Your task to perform on an android device: Open notification settings Image 0: 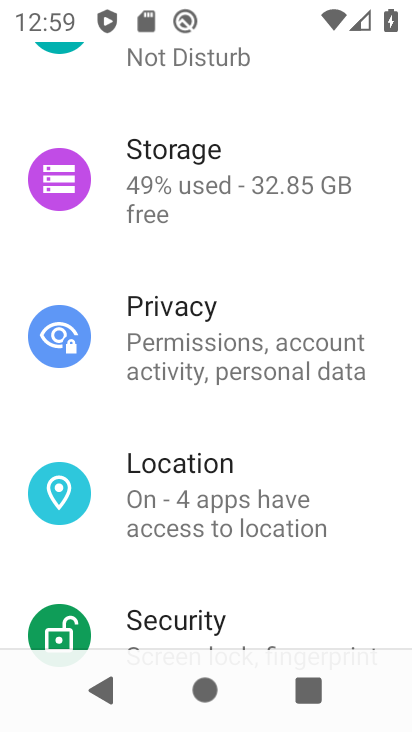
Step 0: press home button
Your task to perform on an android device: Open notification settings Image 1: 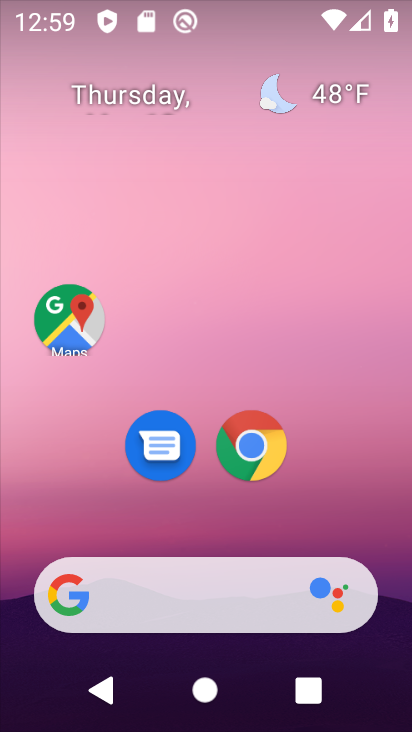
Step 1: drag from (193, 520) to (170, 46)
Your task to perform on an android device: Open notification settings Image 2: 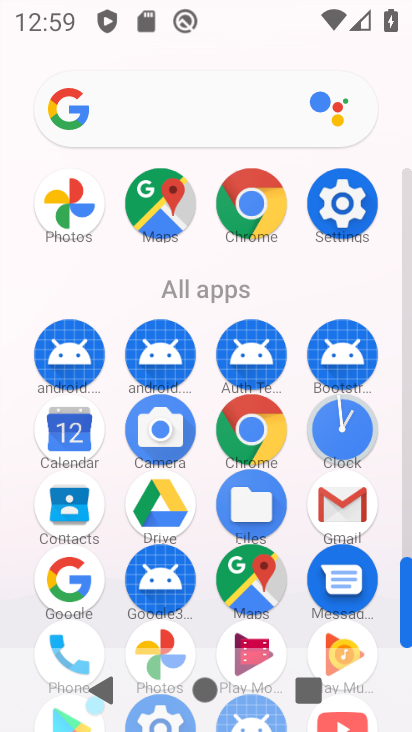
Step 2: click (343, 203)
Your task to perform on an android device: Open notification settings Image 3: 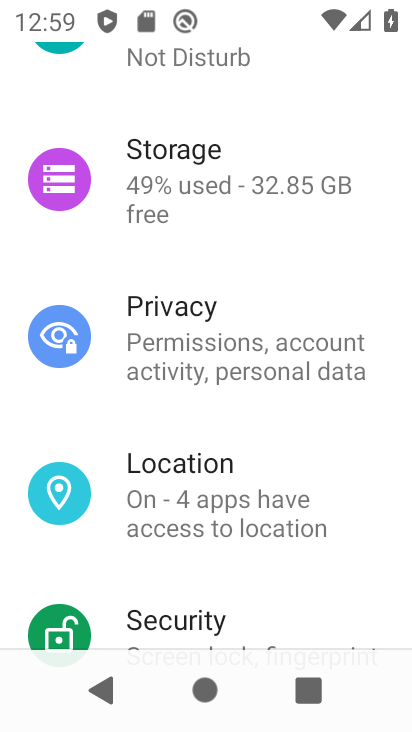
Step 3: drag from (295, 255) to (252, 612)
Your task to perform on an android device: Open notification settings Image 4: 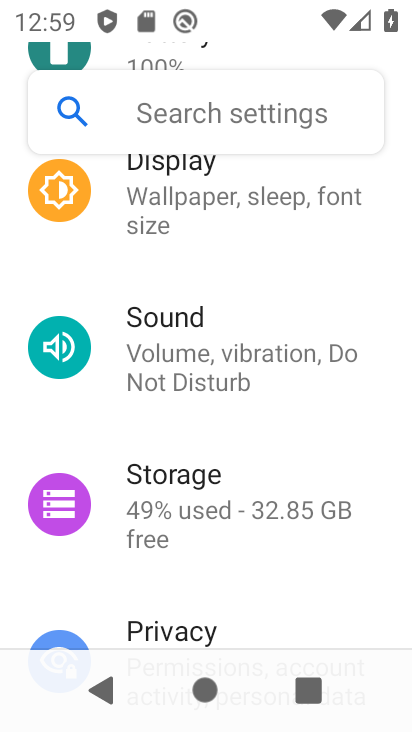
Step 4: drag from (215, 226) to (197, 557)
Your task to perform on an android device: Open notification settings Image 5: 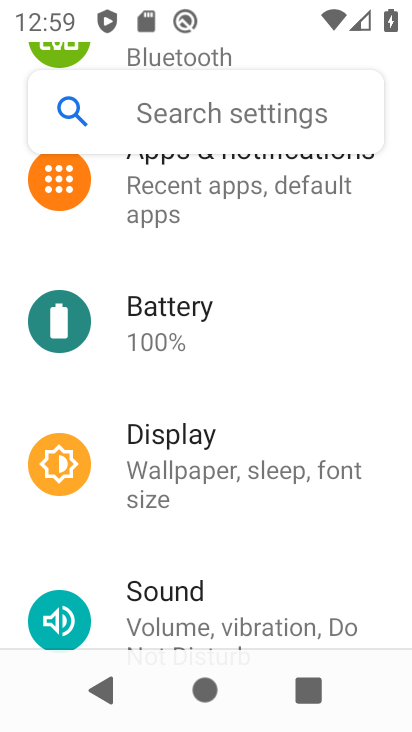
Step 5: click (207, 207)
Your task to perform on an android device: Open notification settings Image 6: 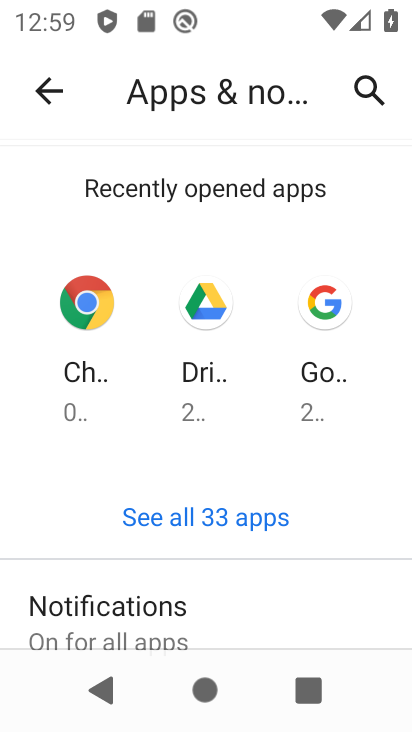
Step 6: task complete